Your task to perform on an android device: Show me popular games on the Play Store Image 0: 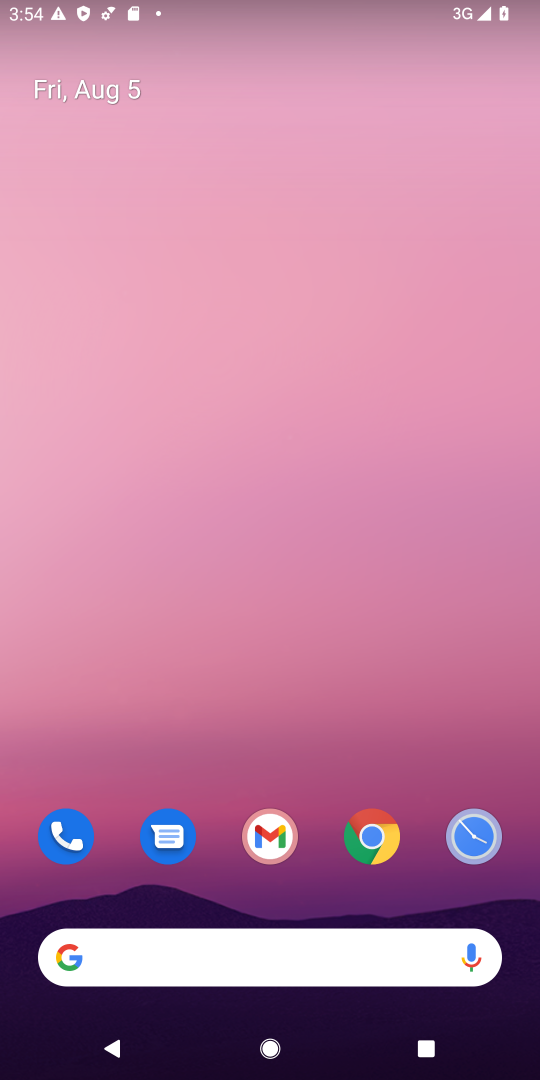
Step 0: drag from (310, 879) to (224, 4)
Your task to perform on an android device: Show me popular games on the Play Store Image 1: 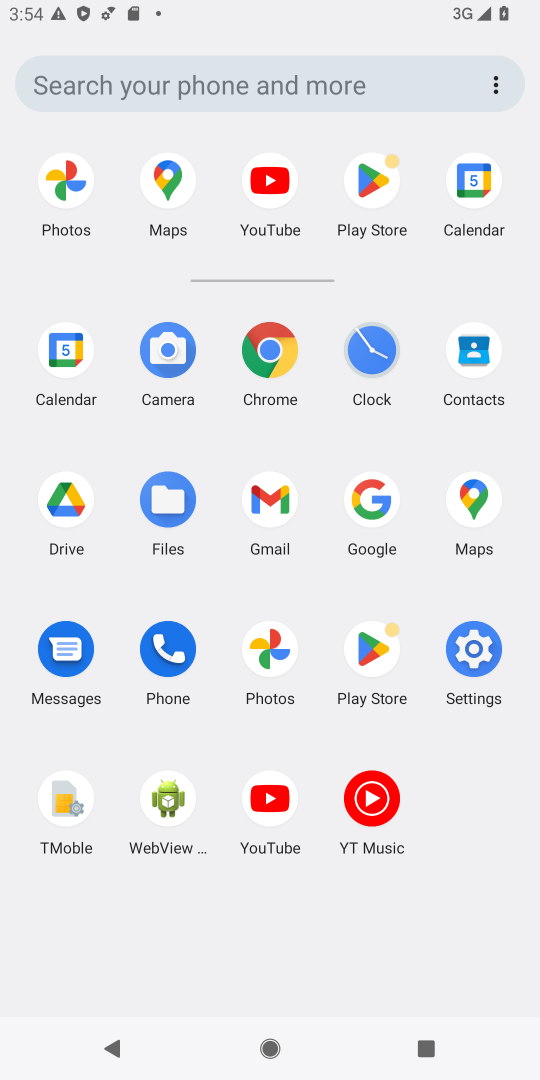
Step 1: click (369, 646)
Your task to perform on an android device: Show me popular games on the Play Store Image 2: 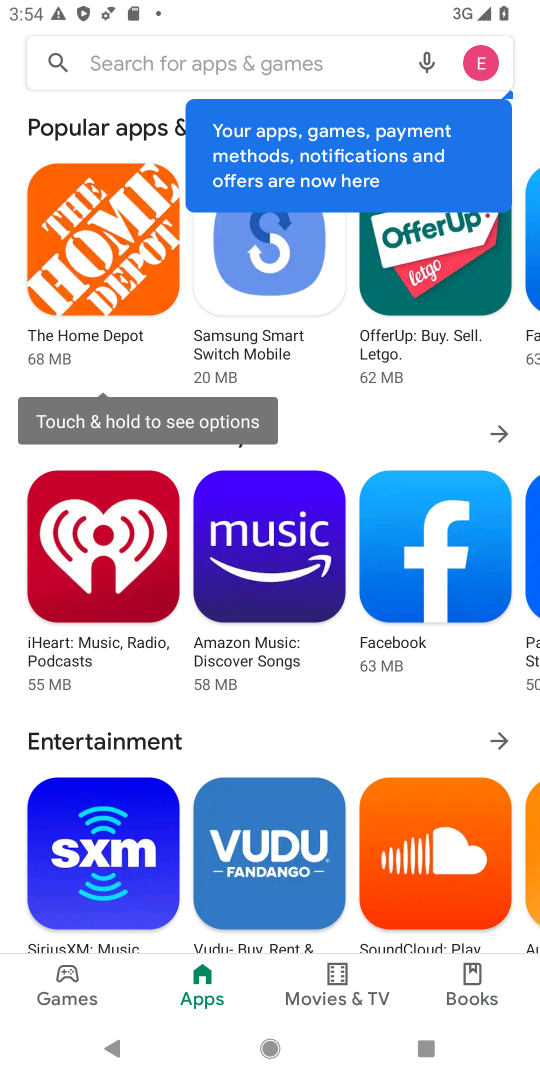
Step 2: click (129, 55)
Your task to perform on an android device: Show me popular games on the Play Store Image 3: 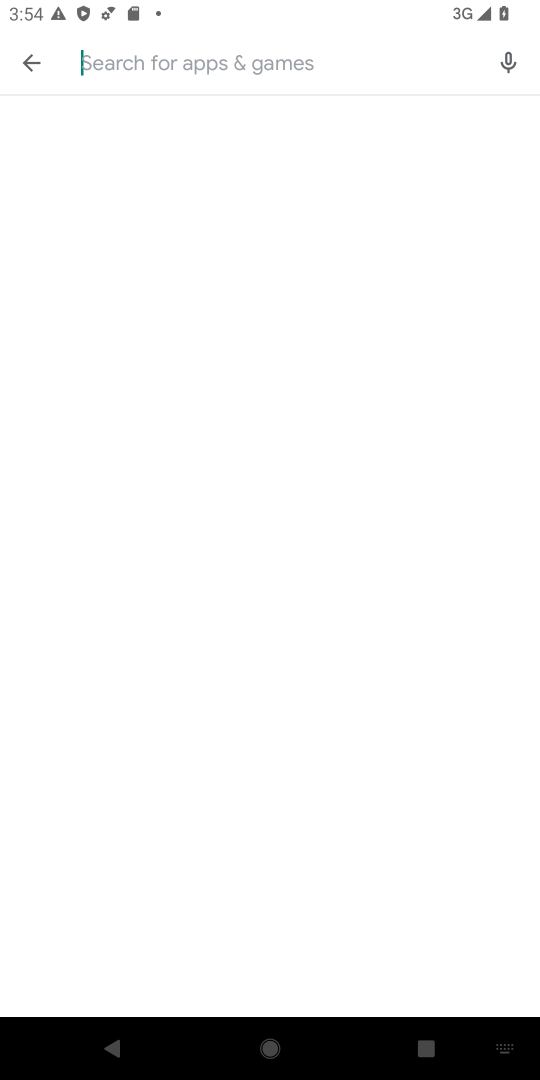
Step 3: type "popular games"
Your task to perform on an android device: Show me popular games on the Play Store Image 4: 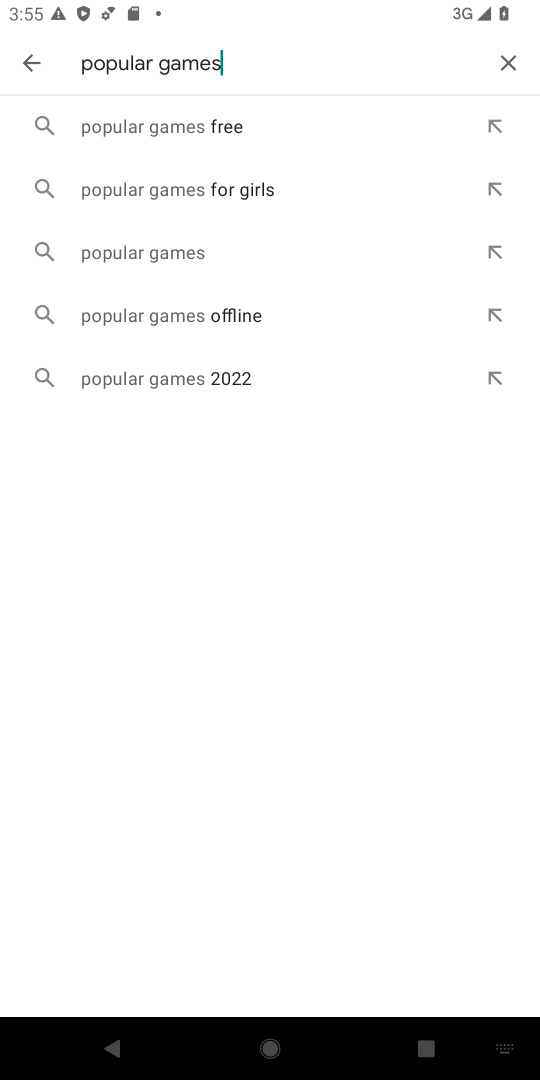
Step 4: click (109, 266)
Your task to perform on an android device: Show me popular games on the Play Store Image 5: 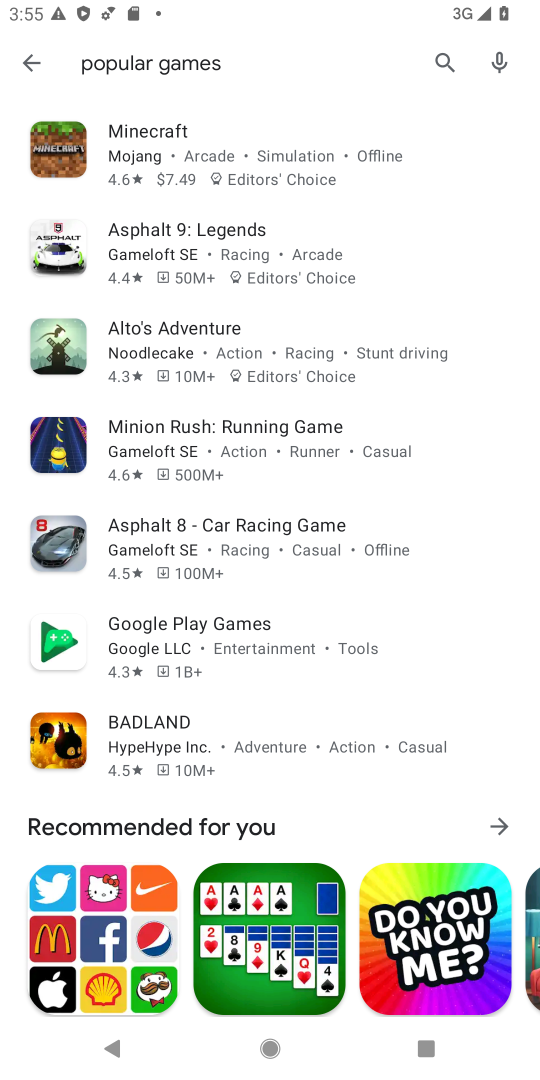
Step 5: task complete